Your task to perform on an android device: Open the map Image 0: 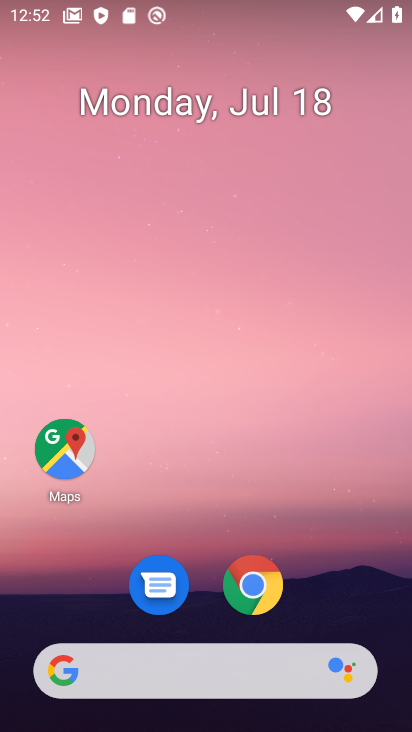
Step 0: press home button
Your task to perform on an android device: Open the map Image 1: 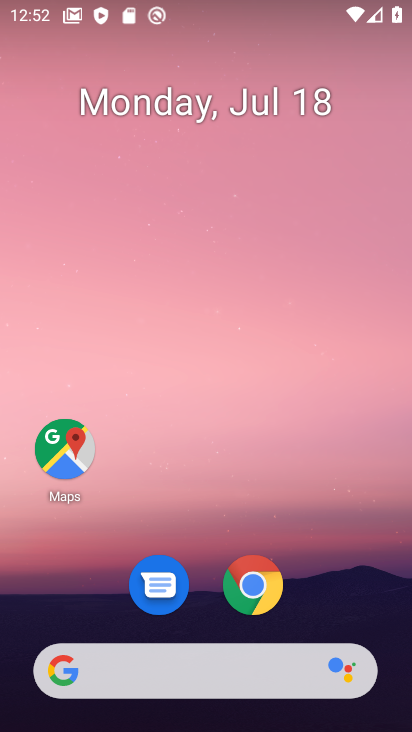
Step 1: click (63, 452)
Your task to perform on an android device: Open the map Image 2: 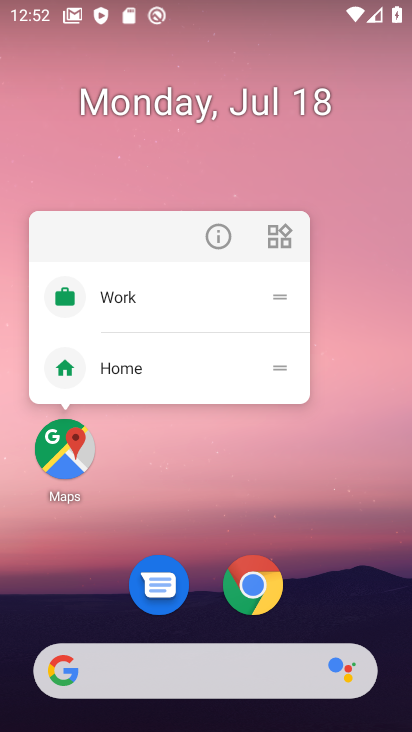
Step 2: click (63, 453)
Your task to perform on an android device: Open the map Image 3: 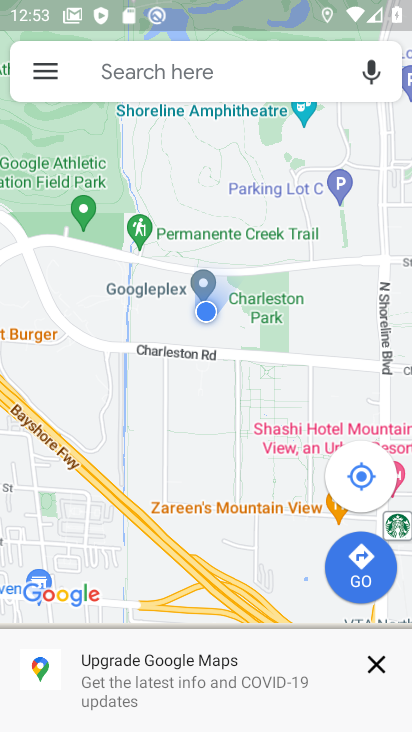
Step 3: task complete